Your task to perform on an android device: Open calendar and show me the second week of next month Image 0: 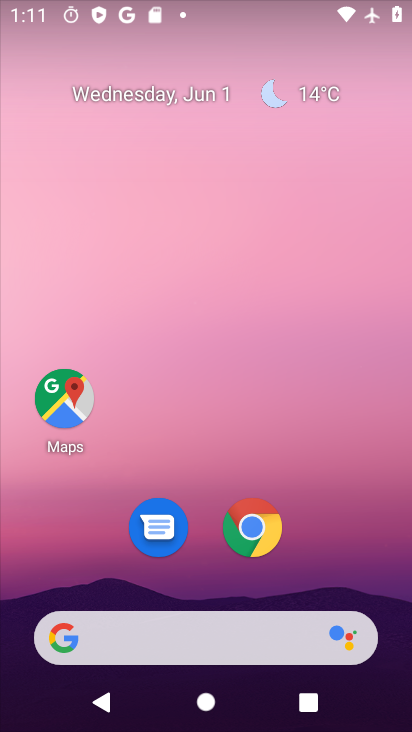
Step 0: drag from (295, 633) to (262, 122)
Your task to perform on an android device: Open calendar and show me the second week of next month Image 1: 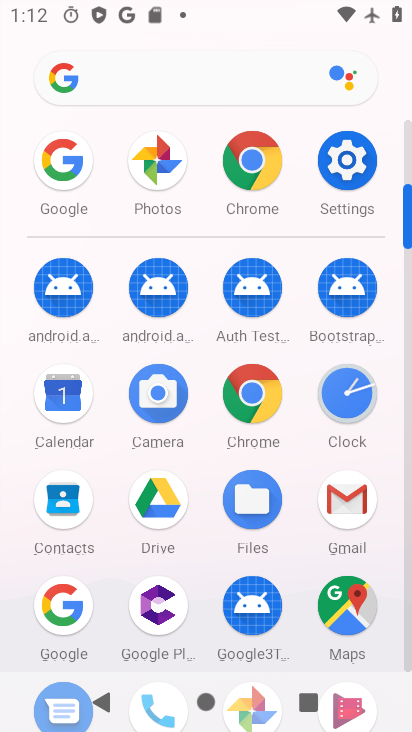
Step 1: click (54, 407)
Your task to perform on an android device: Open calendar and show me the second week of next month Image 2: 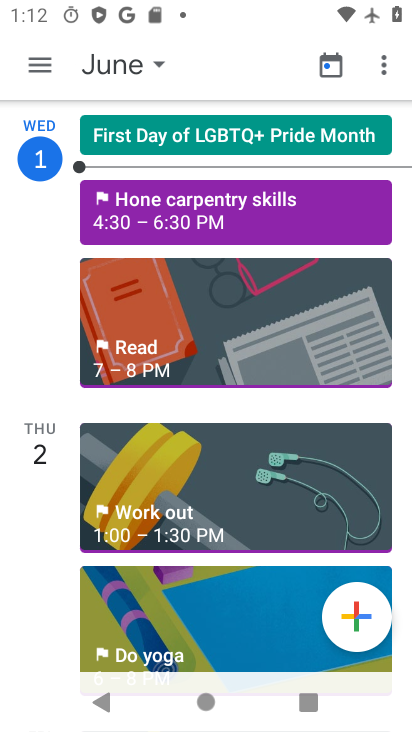
Step 2: click (117, 71)
Your task to perform on an android device: Open calendar and show me the second week of next month Image 3: 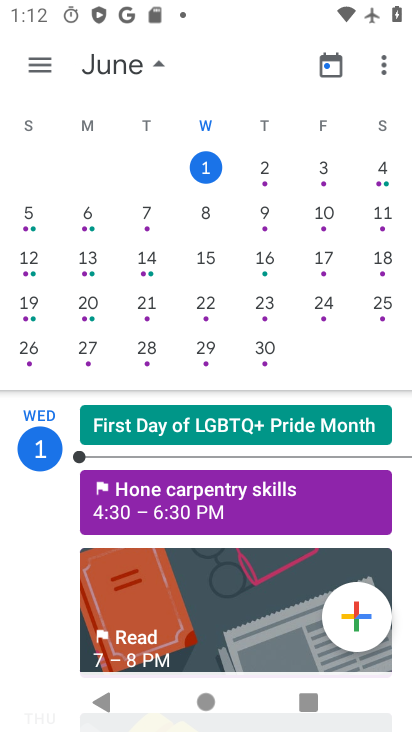
Step 3: drag from (324, 288) to (8, 177)
Your task to perform on an android device: Open calendar and show me the second week of next month Image 4: 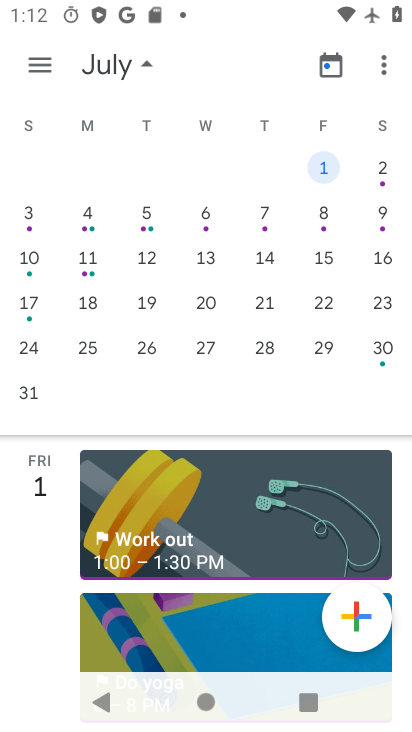
Step 4: click (47, 228)
Your task to perform on an android device: Open calendar and show me the second week of next month Image 5: 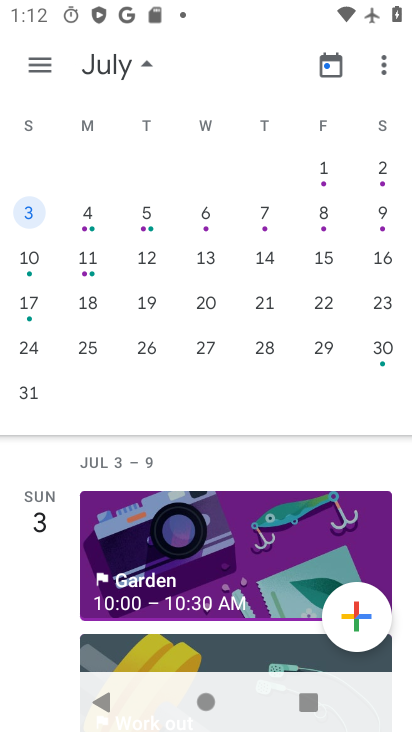
Step 5: task complete